Your task to perform on an android device: Open display settings Image 0: 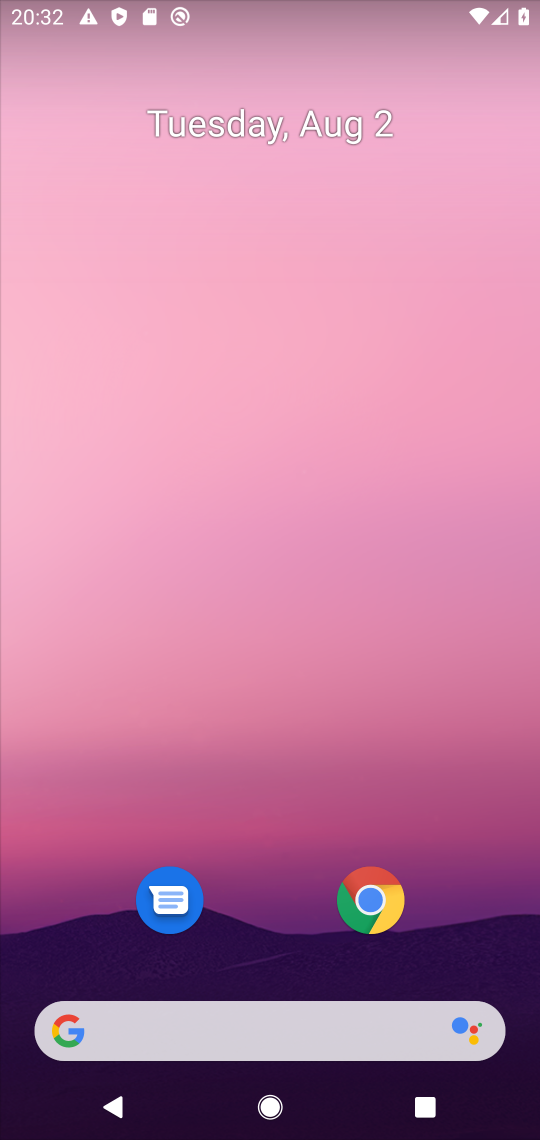
Step 0: drag from (285, 858) to (340, 0)
Your task to perform on an android device: Open display settings Image 1: 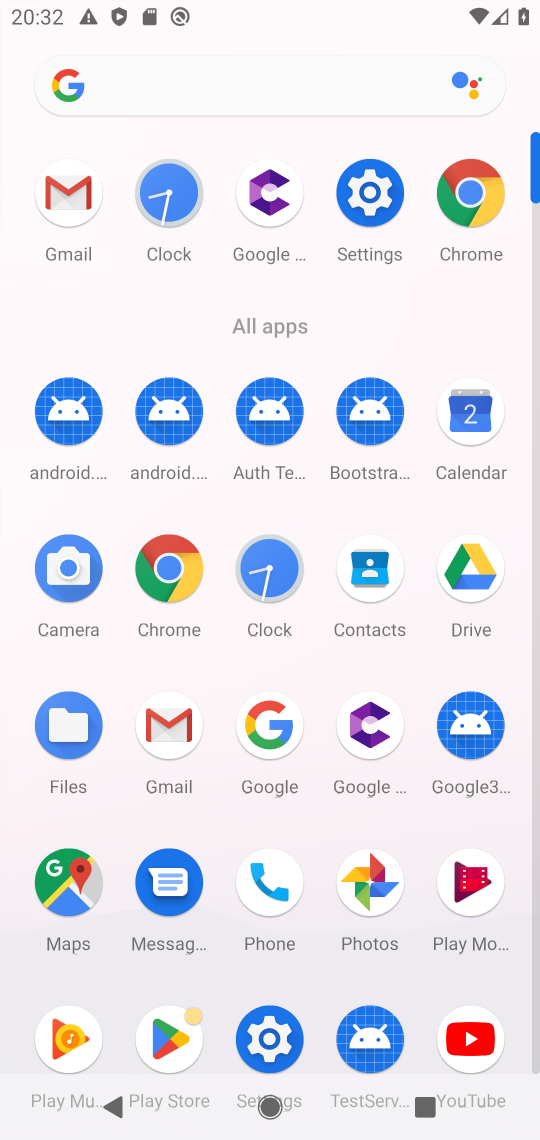
Step 1: click (374, 192)
Your task to perform on an android device: Open display settings Image 2: 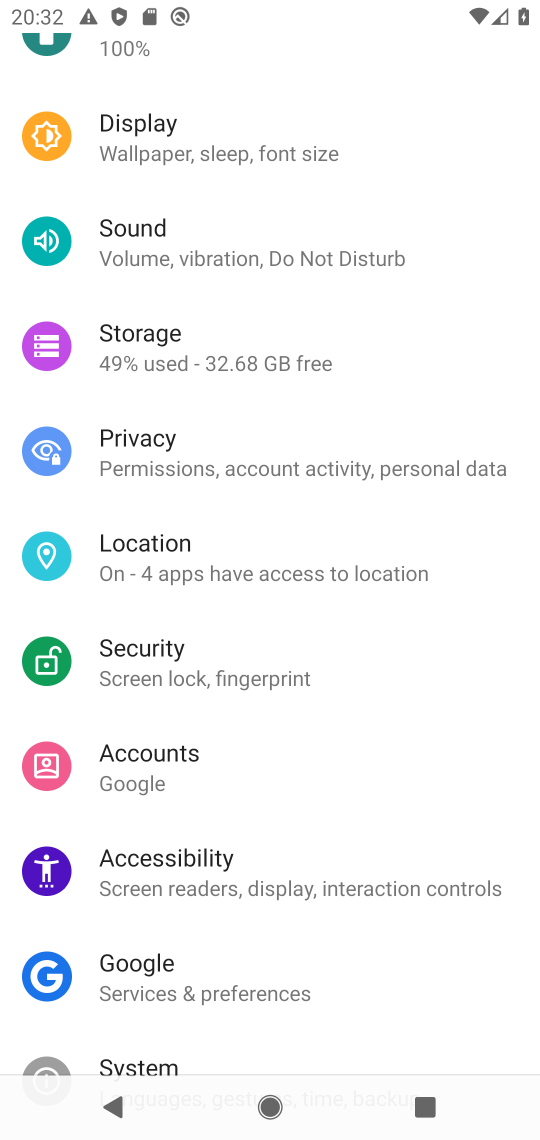
Step 2: click (268, 156)
Your task to perform on an android device: Open display settings Image 3: 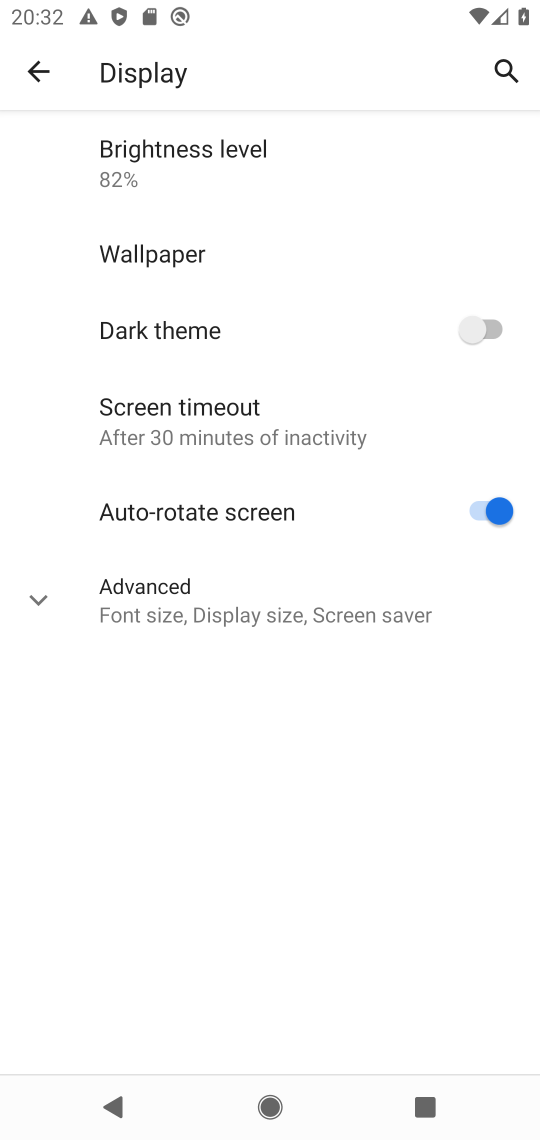
Step 3: task complete